Your task to perform on an android device: Open privacy settings Image 0: 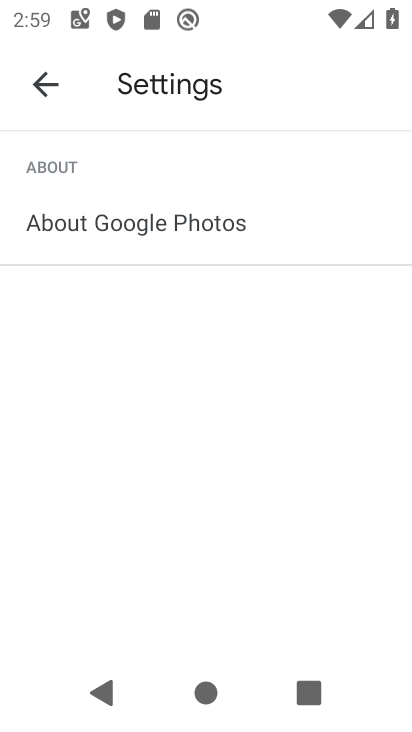
Step 0: press home button
Your task to perform on an android device: Open privacy settings Image 1: 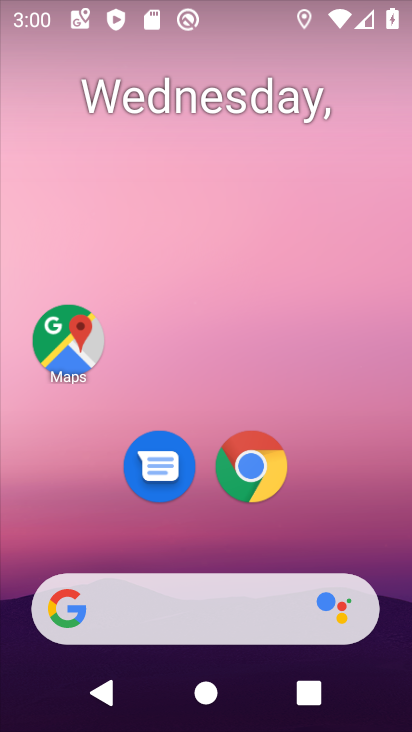
Step 1: drag from (244, 576) to (93, 18)
Your task to perform on an android device: Open privacy settings Image 2: 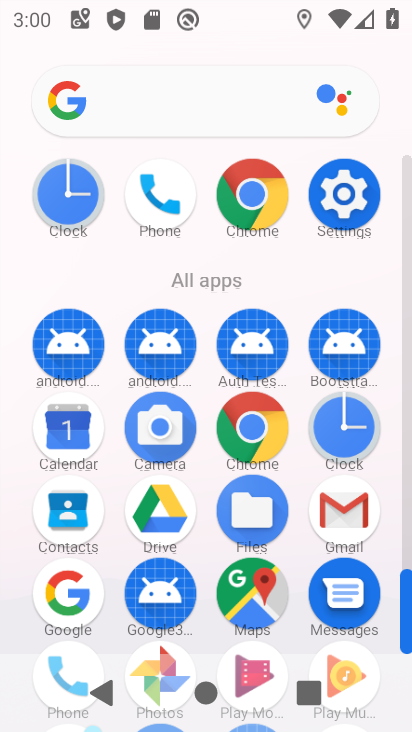
Step 2: click (349, 198)
Your task to perform on an android device: Open privacy settings Image 3: 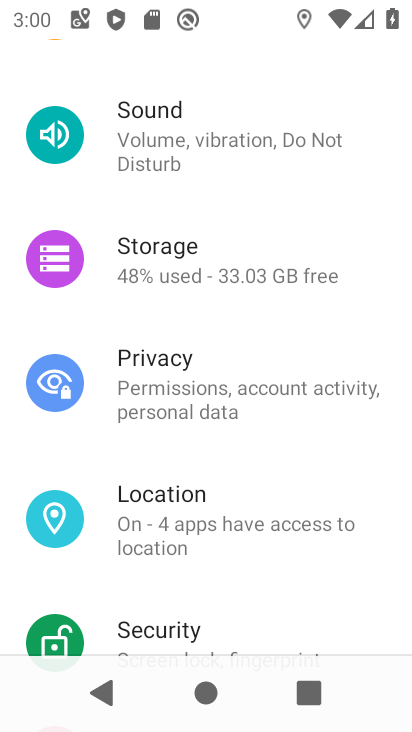
Step 3: click (157, 395)
Your task to perform on an android device: Open privacy settings Image 4: 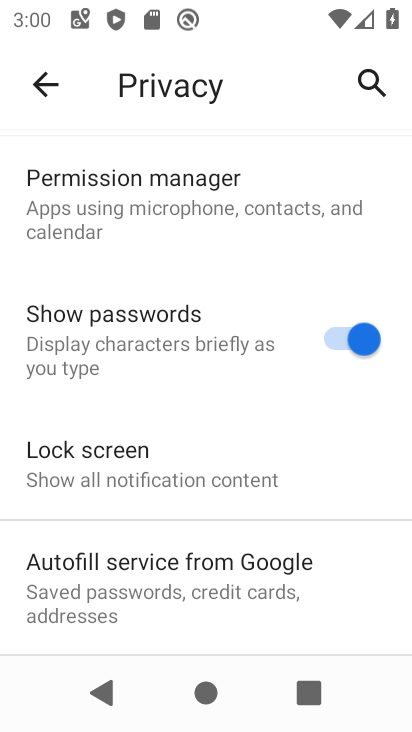
Step 4: task complete